Your task to perform on an android device: turn on improve location accuracy Image 0: 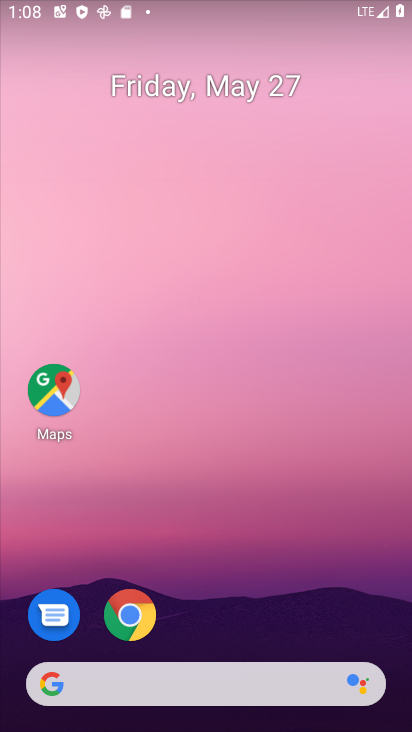
Step 0: drag from (275, 671) to (287, 98)
Your task to perform on an android device: turn on improve location accuracy Image 1: 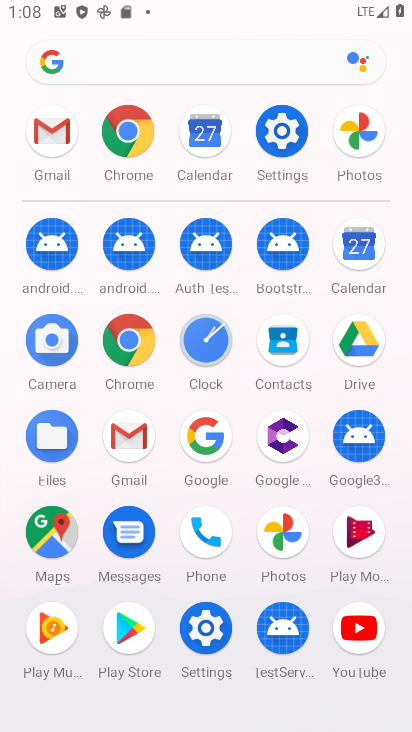
Step 1: click (283, 141)
Your task to perform on an android device: turn on improve location accuracy Image 2: 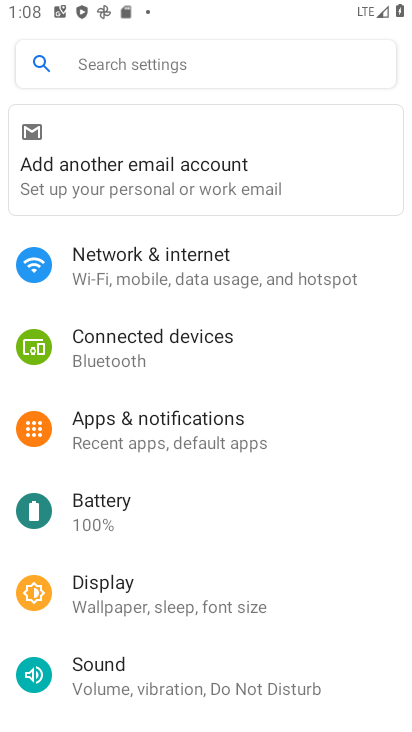
Step 2: drag from (191, 617) to (209, 211)
Your task to perform on an android device: turn on improve location accuracy Image 3: 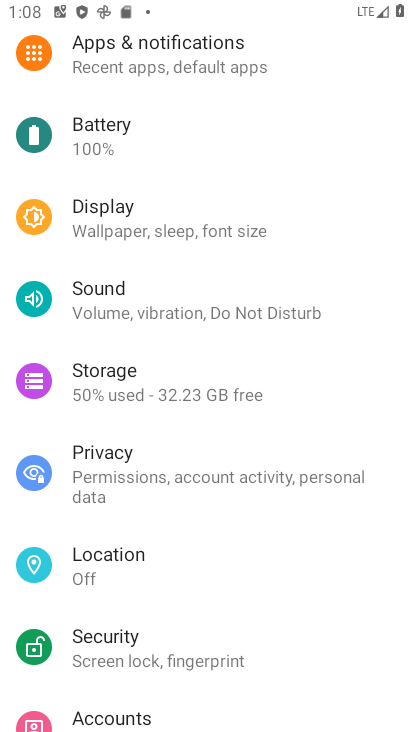
Step 3: click (156, 555)
Your task to perform on an android device: turn on improve location accuracy Image 4: 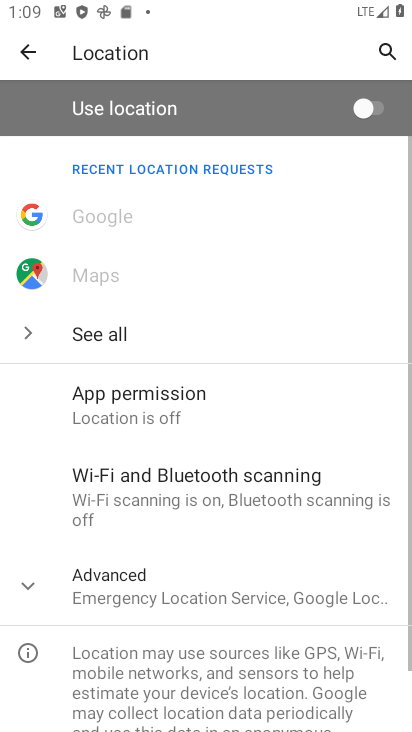
Step 4: click (253, 584)
Your task to perform on an android device: turn on improve location accuracy Image 5: 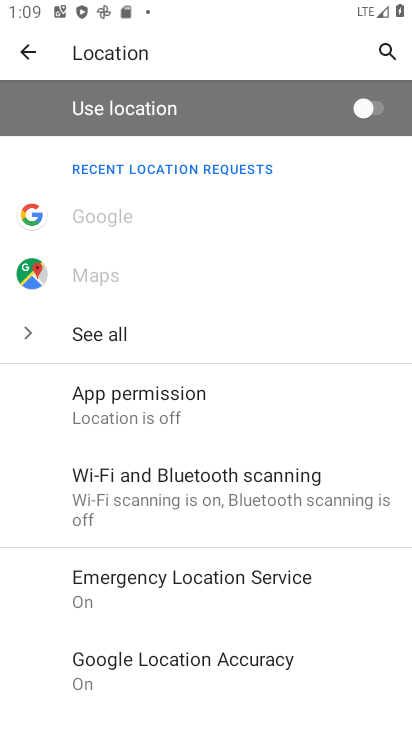
Step 5: task complete